Your task to perform on an android device: open a bookmark in the chrome app Image 0: 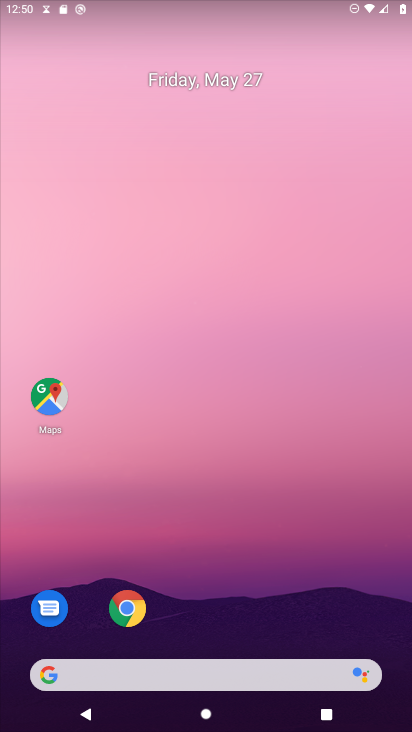
Step 0: press home button
Your task to perform on an android device: open a bookmark in the chrome app Image 1: 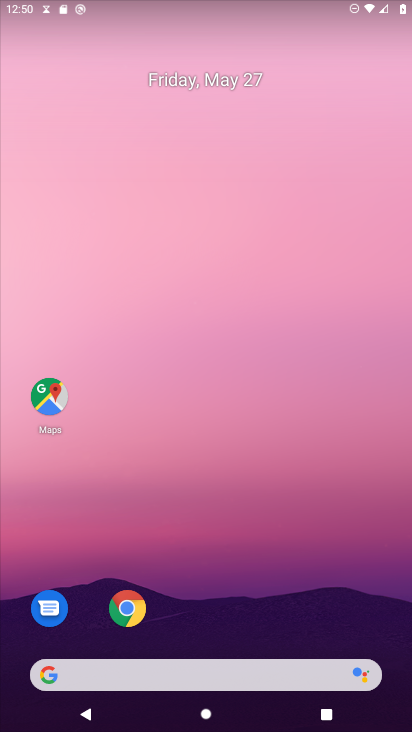
Step 1: click (128, 613)
Your task to perform on an android device: open a bookmark in the chrome app Image 2: 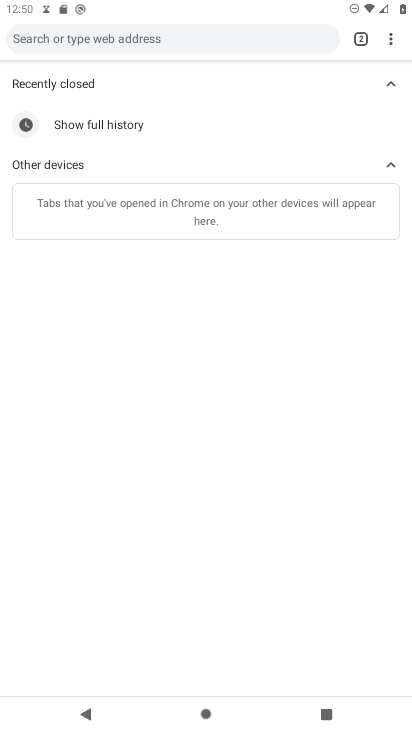
Step 2: task complete